Your task to perform on an android device: Search for 3d printed chess sets on Etsy. Image 0: 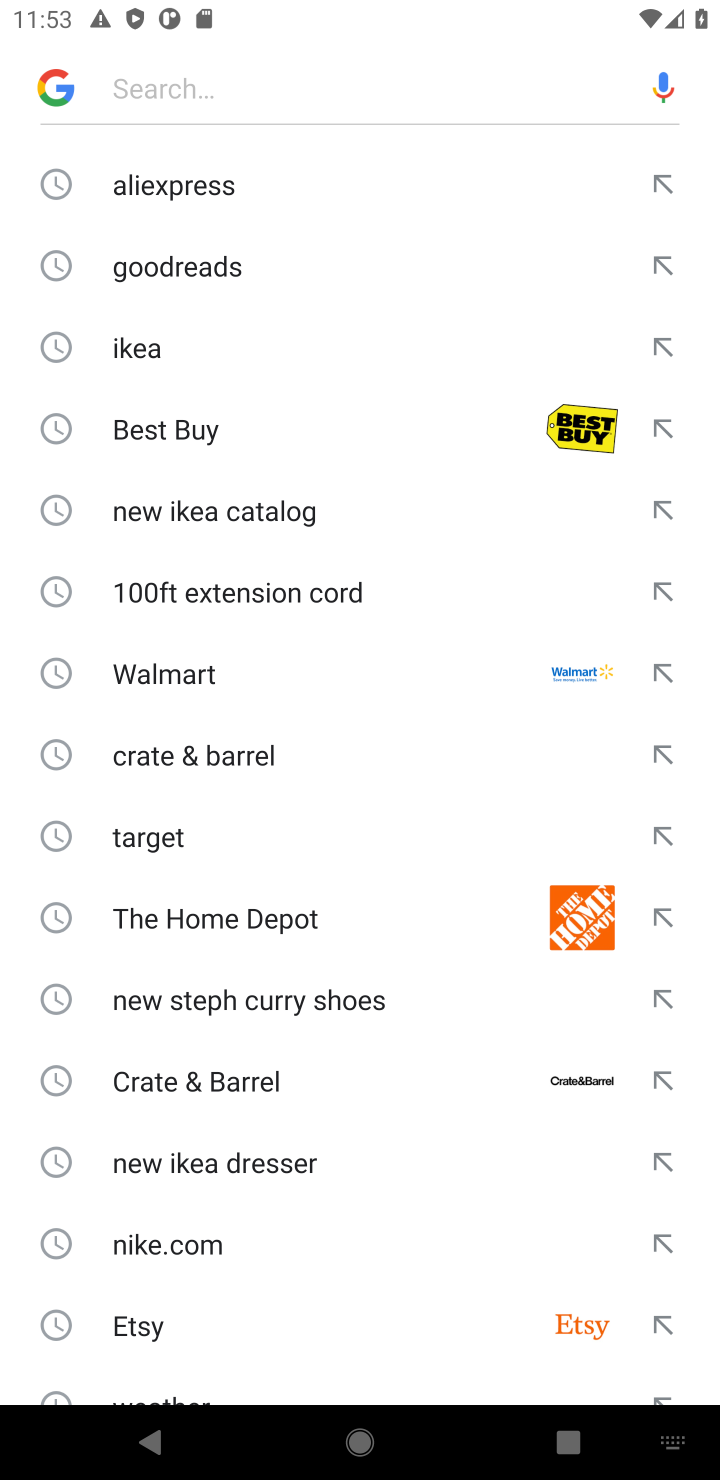
Step 0: click (187, 1335)
Your task to perform on an android device: Search for 3d printed chess sets on Etsy. Image 1: 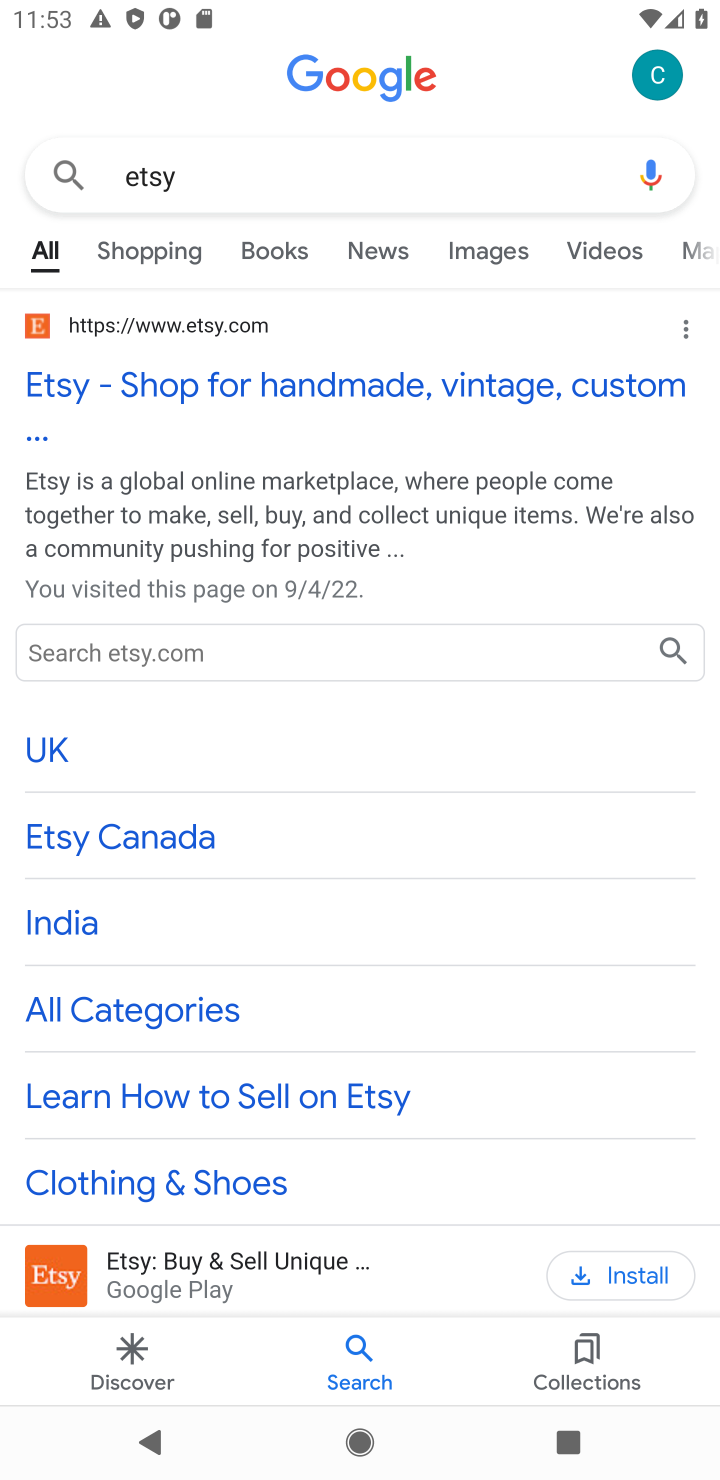
Step 1: click (129, 380)
Your task to perform on an android device: Search for 3d printed chess sets on Etsy. Image 2: 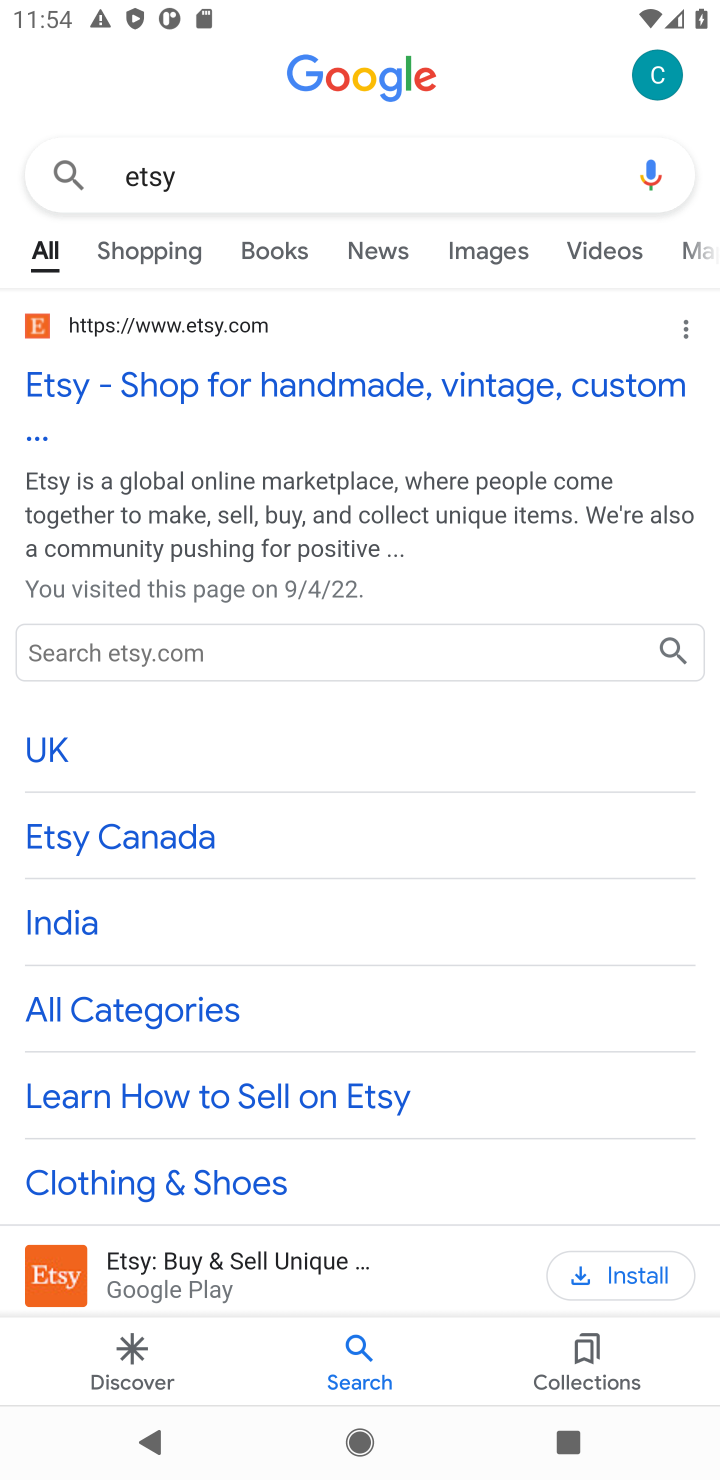
Step 2: click (76, 373)
Your task to perform on an android device: Search for 3d printed chess sets on Etsy. Image 3: 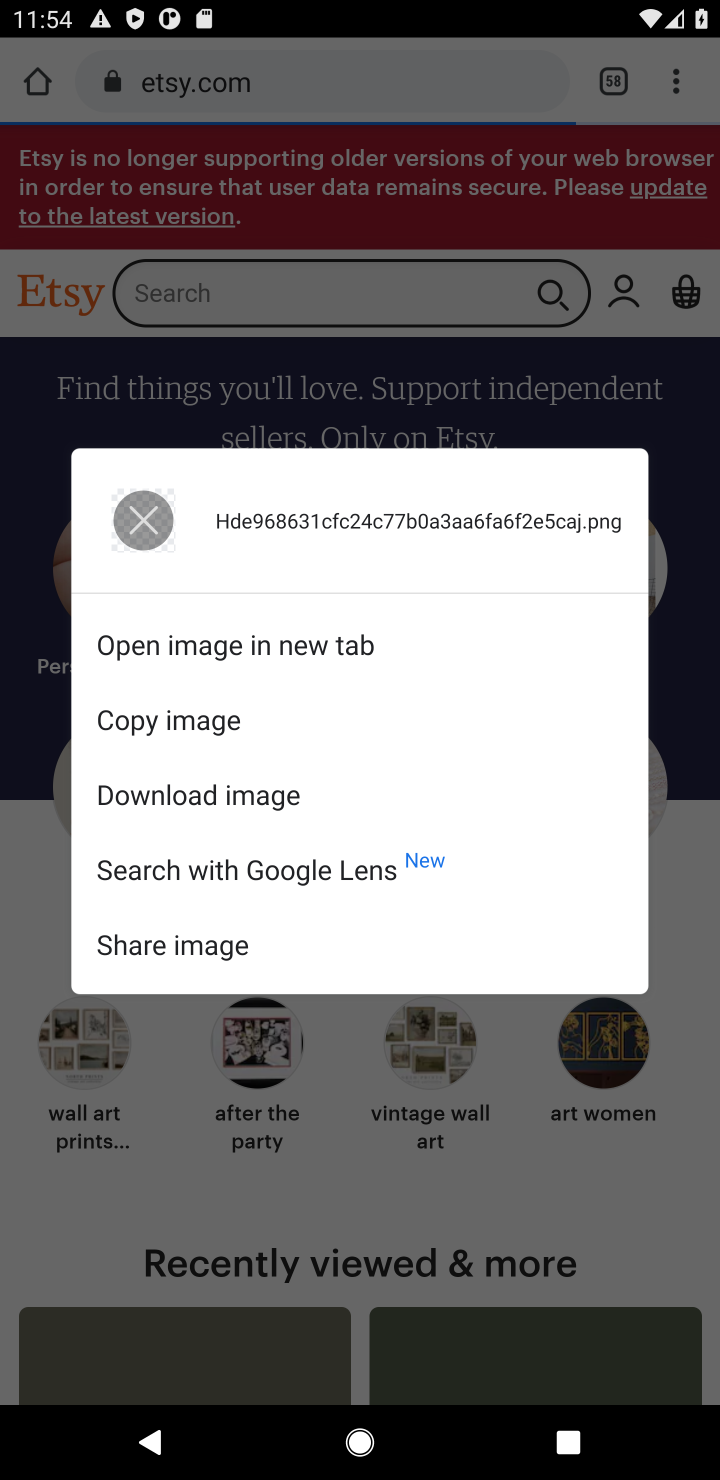
Step 3: click (171, 391)
Your task to perform on an android device: Search for 3d printed chess sets on Etsy. Image 4: 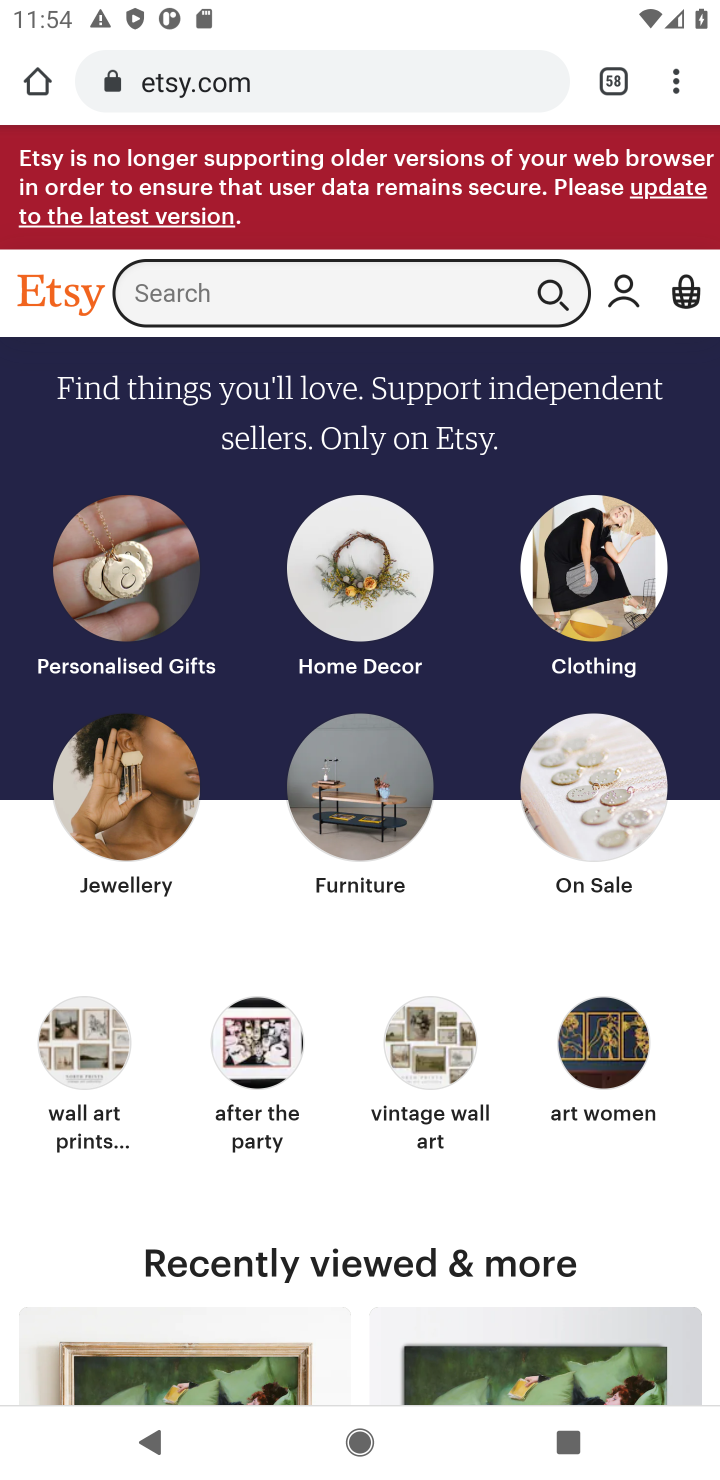
Step 4: click (377, 283)
Your task to perform on an android device: Search for 3d printed chess sets on Etsy. Image 5: 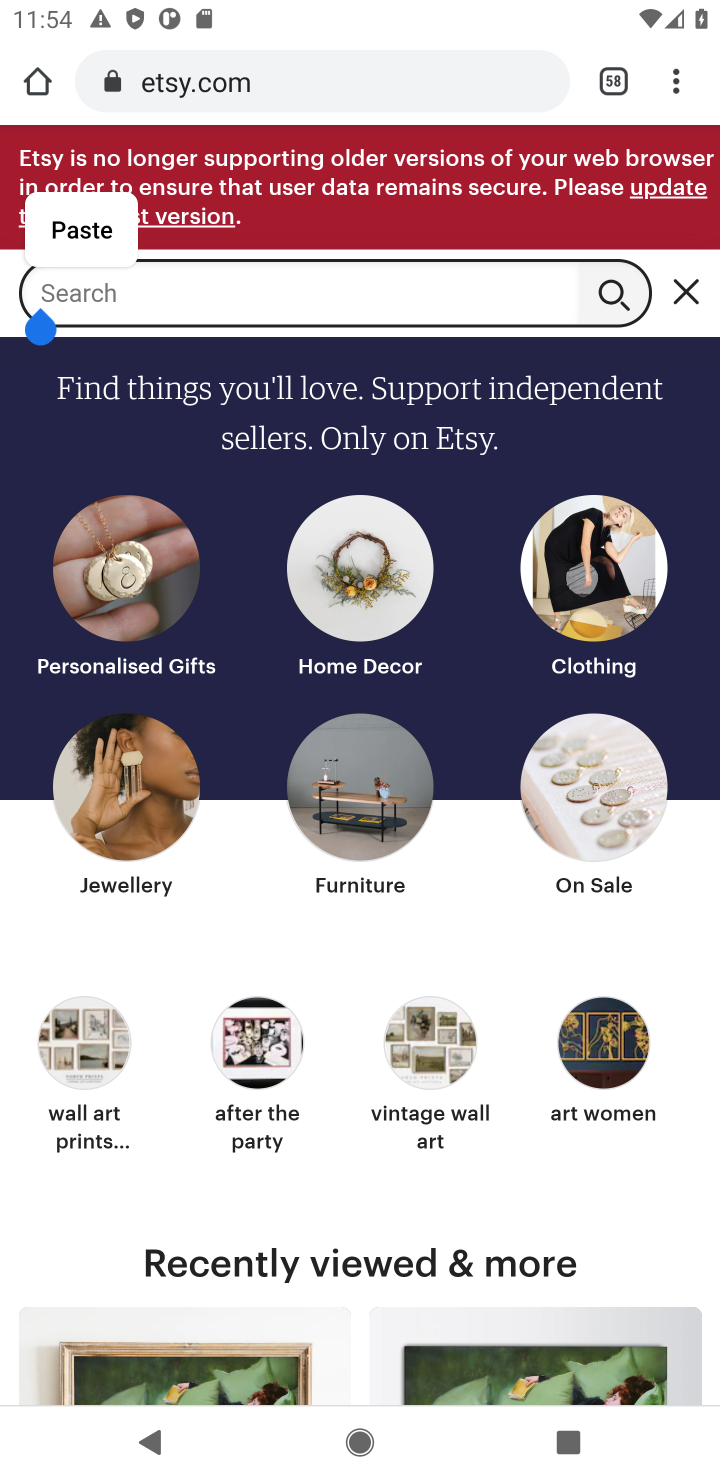
Step 5: type "3d printed chess sets"
Your task to perform on an android device: Search for 3d printed chess sets on Etsy. Image 6: 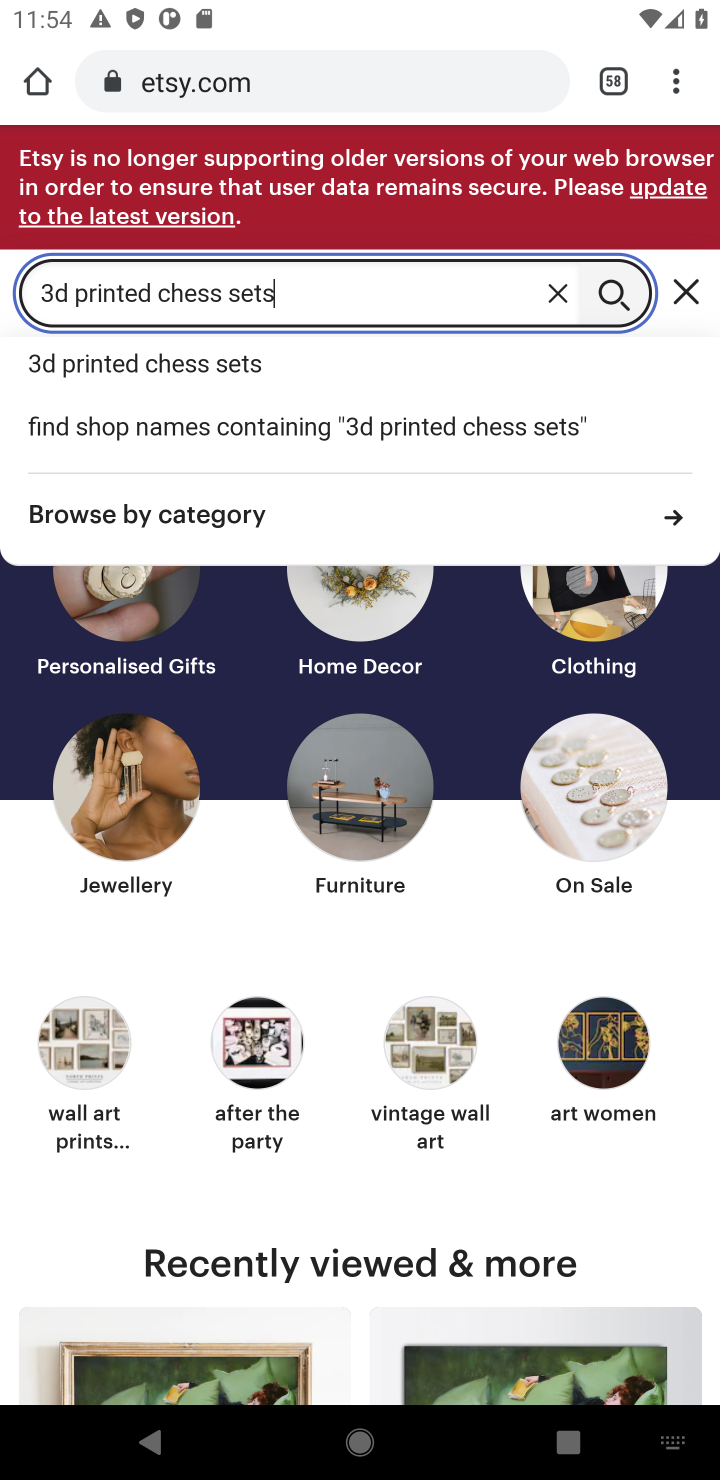
Step 6: type ""
Your task to perform on an android device: Search for 3d printed chess sets on Etsy. Image 7: 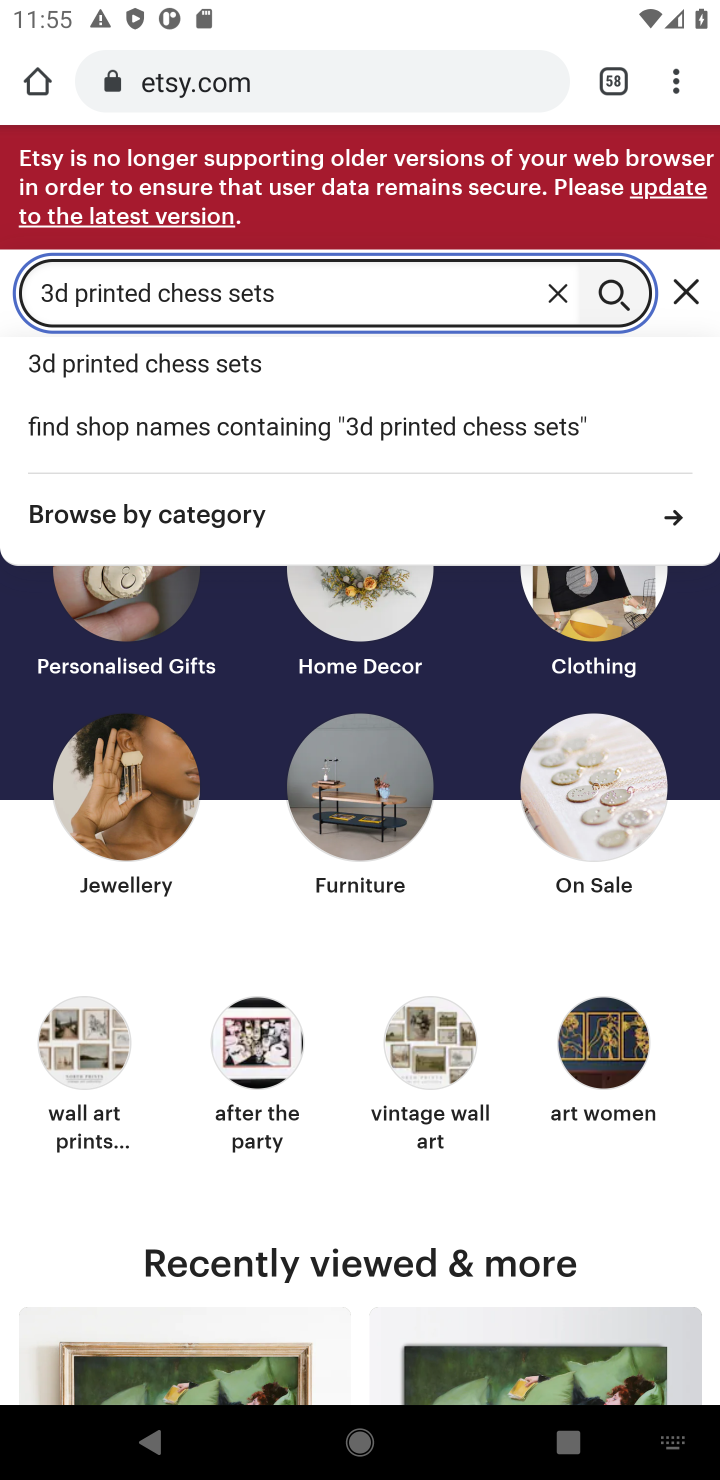
Step 7: click (612, 294)
Your task to perform on an android device: Search for 3d printed chess sets on Etsy. Image 8: 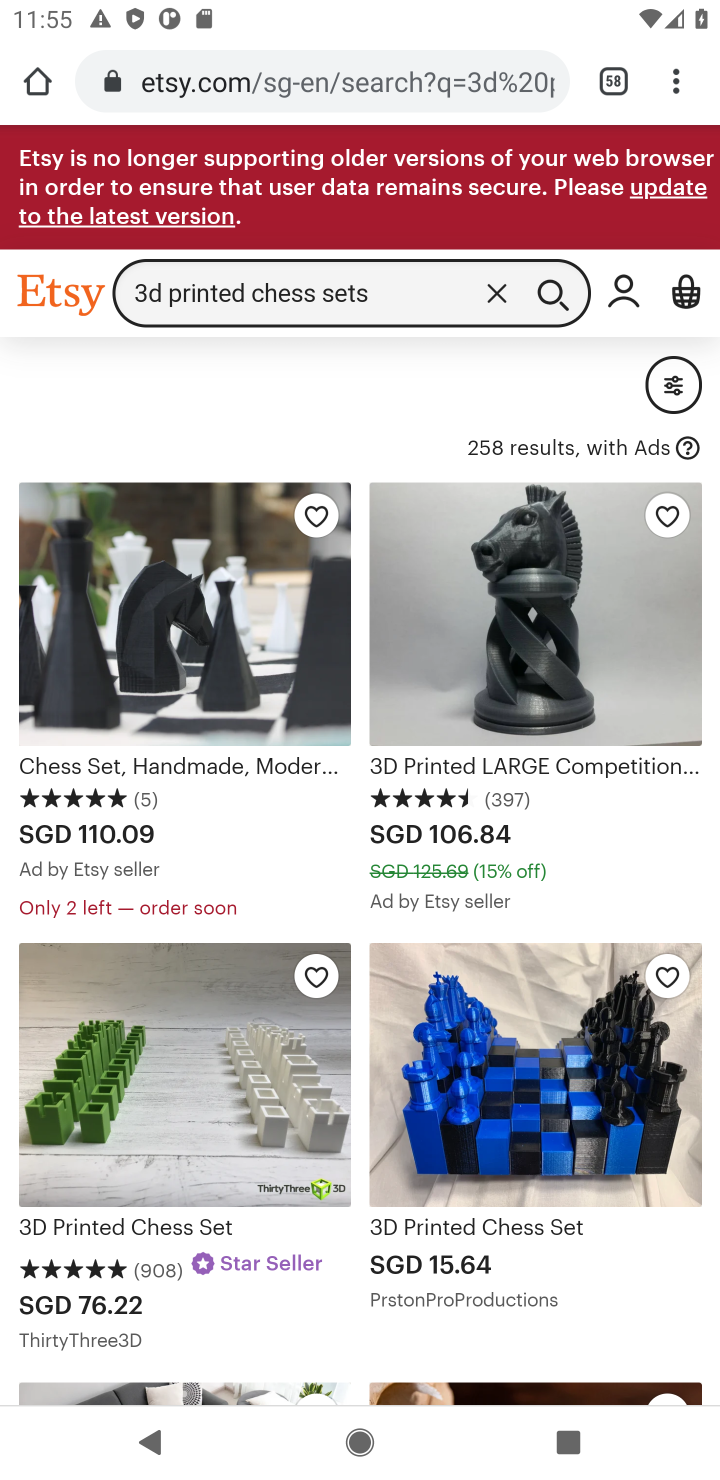
Step 8: click (545, 282)
Your task to perform on an android device: Search for 3d printed chess sets on Etsy. Image 9: 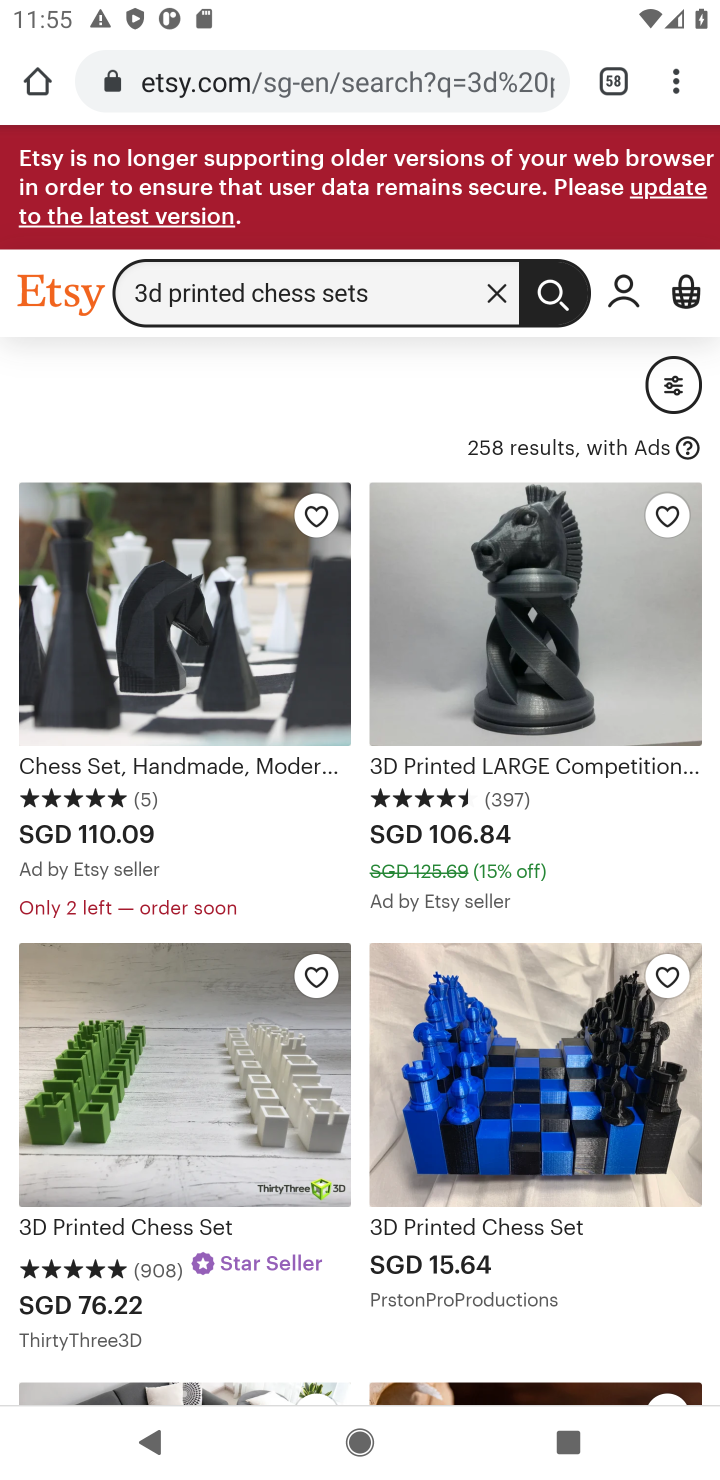
Step 9: task complete